Your task to perform on an android device: Set the phone to "Do not disturb". Image 0: 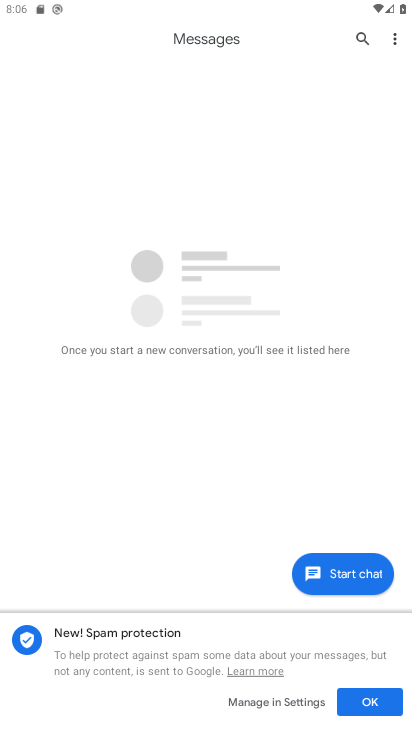
Step 0: press back button
Your task to perform on an android device: Set the phone to "Do not disturb". Image 1: 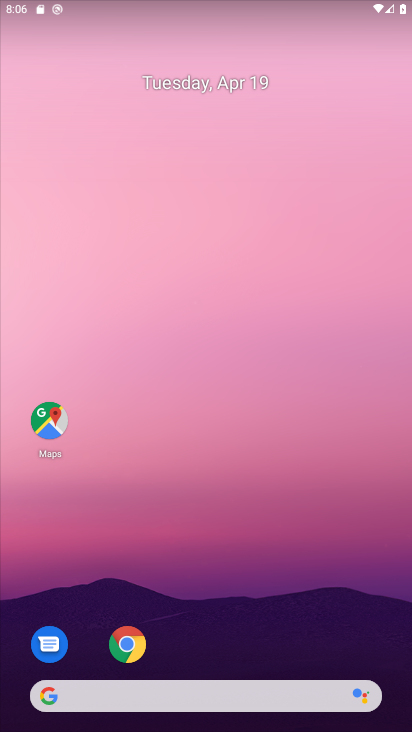
Step 1: drag from (203, 660) to (218, 168)
Your task to perform on an android device: Set the phone to "Do not disturb". Image 2: 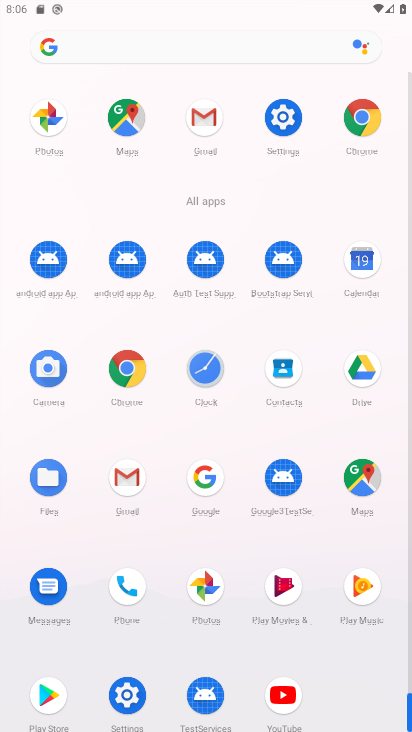
Step 2: drag from (196, 2) to (182, 544)
Your task to perform on an android device: Set the phone to "Do not disturb". Image 3: 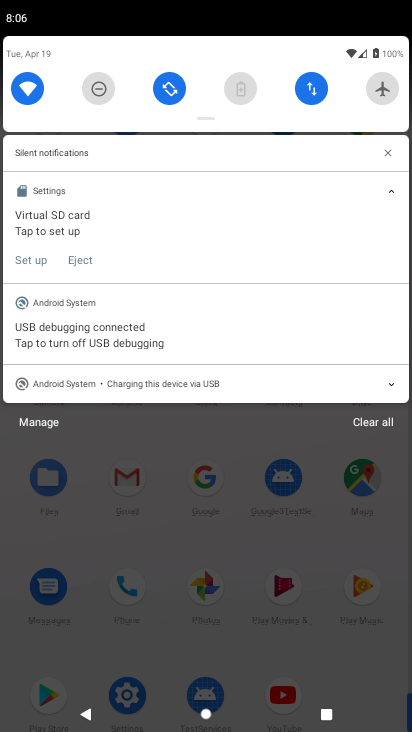
Step 3: click (97, 86)
Your task to perform on an android device: Set the phone to "Do not disturb". Image 4: 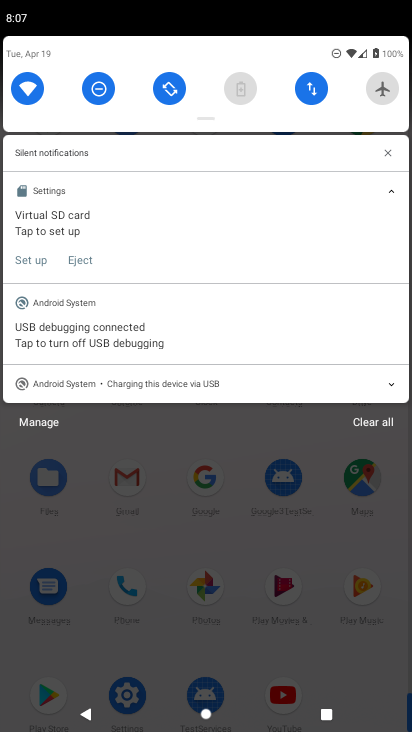
Step 4: task complete